Your task to perform on an android device: turn on showing notifications on the lock screen Image 0: 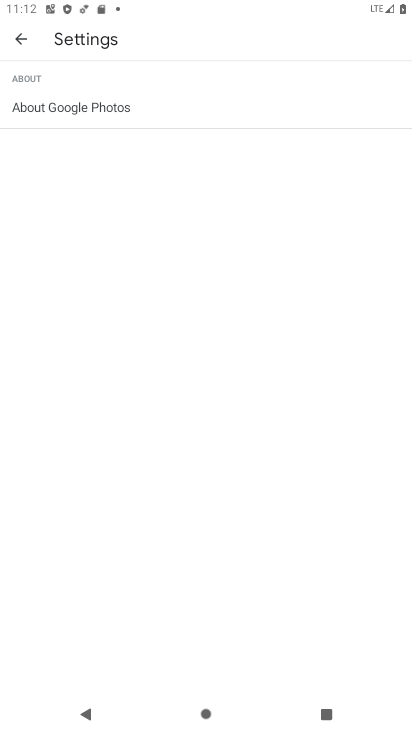
Step 0: press home button
Your task to perform on an android device: turn on showing notifications on the lock screen Image 1: 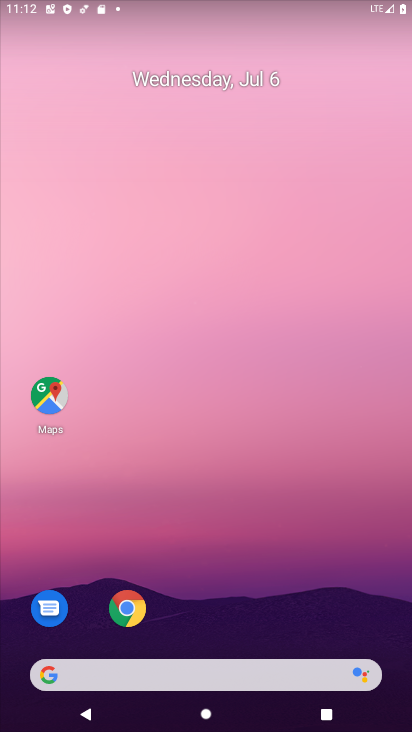
Step 1: drag from (176, 667) to (244, 266)
Your task to perform on an android device: turn on showing notifications on the lock screen Image 2: 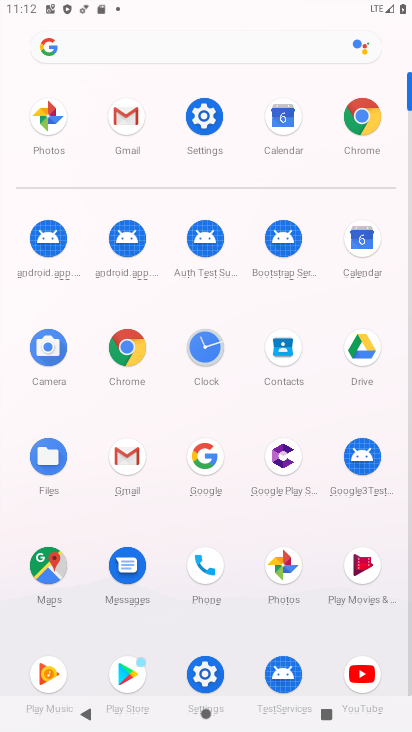
Step 2: click (200, 123)
Your task to perform on an android device: turn on showing notifications on the lock screen Image 3: 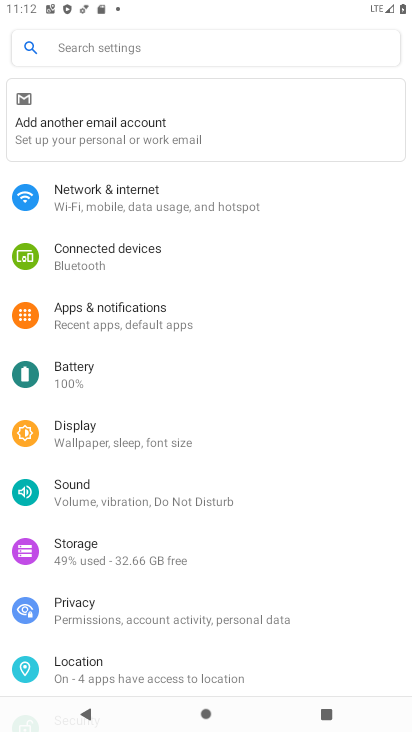
Step 3: click (82, 611)
Your task to perform on an android device: turn on showing notifications on the lock screen Image 4: 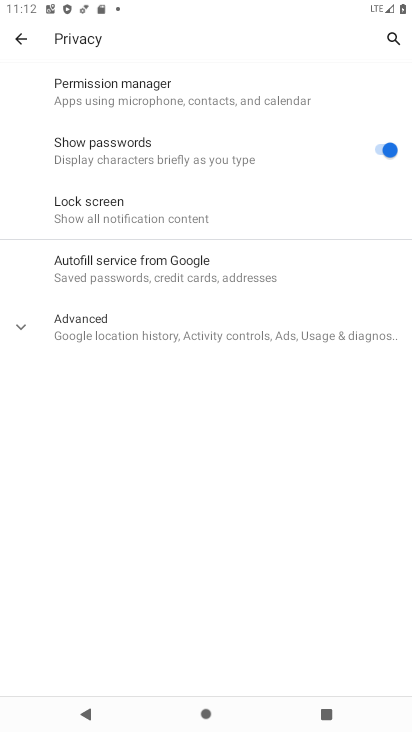
Step 4: click (149, 215)
Your task to perform on an android device: turn on showing notifications on the lock screen Image 5: 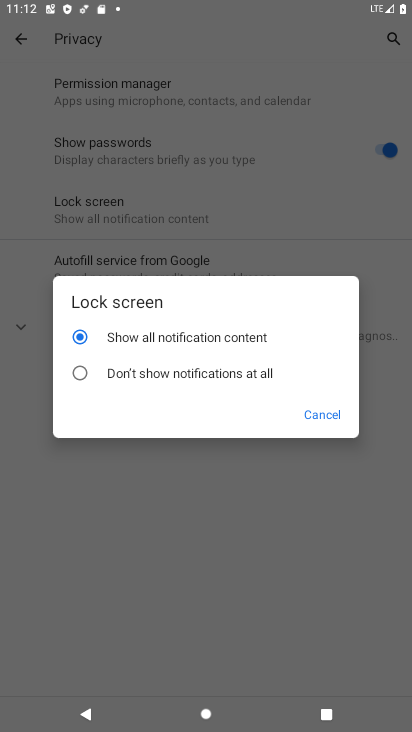
Step 5: task complete